Your task to perform on an android device: toggle wifi Image 0: 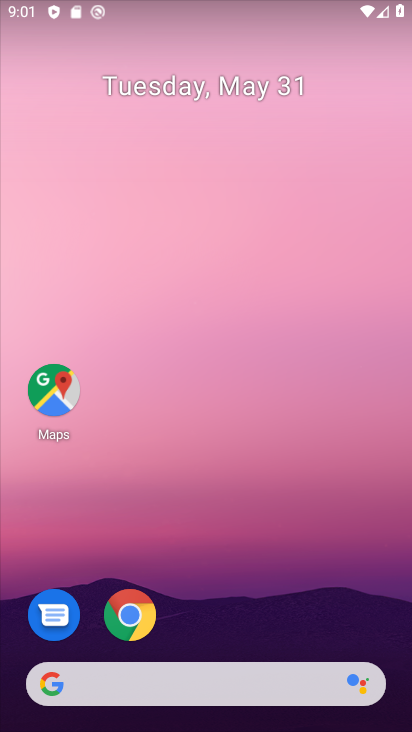
Step 0: drag from (148, 8) to (134, 504)
Your task to perform on an android device: toggle wifi Image 1: 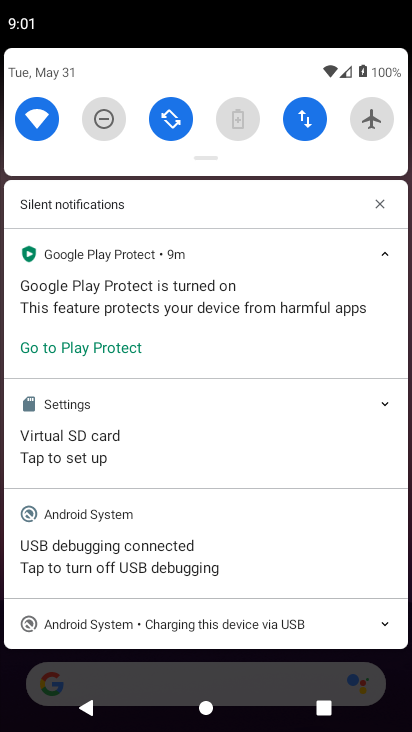
Step 1: click (44, 112)
Your task to perform on an android device: toggle wifi Image 2: 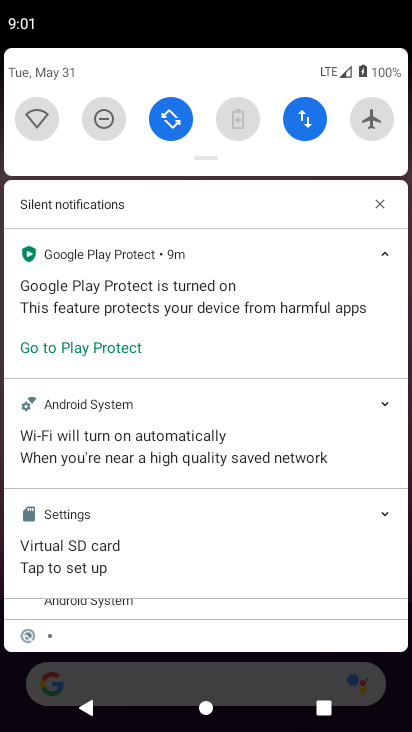
Step 2: task complete